Your task to perform on an android device: Check the news Image 0: 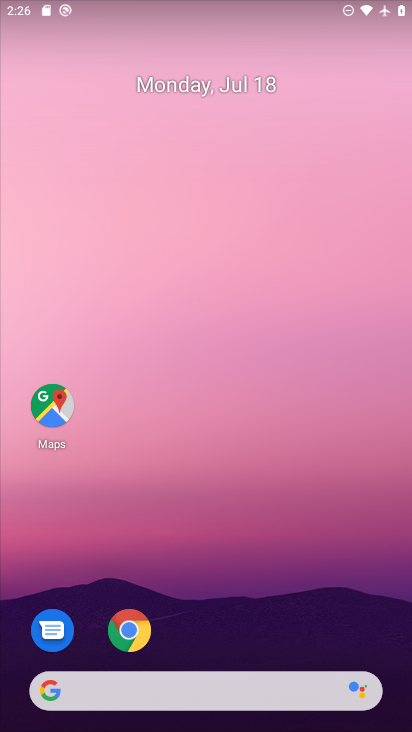
Step 0: click (50, 686)
Your task to perform on an android device: Check the news Image 1: 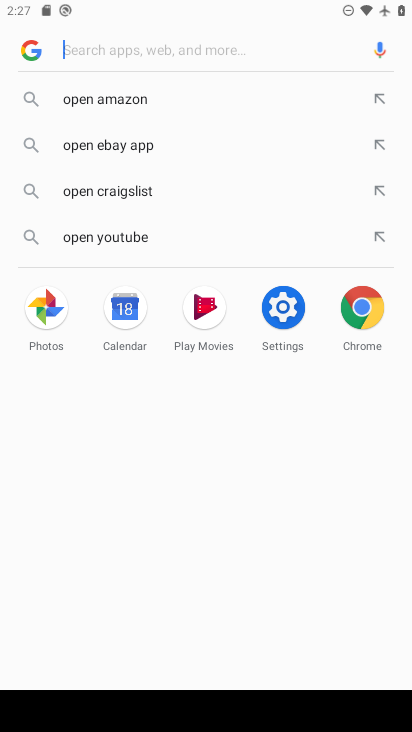
Step 1: type "news"
Your task to perform on an android device: Check the news Image 2: 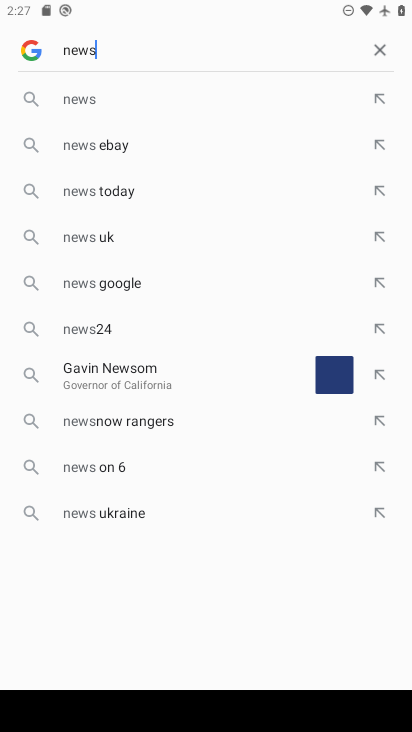
Step 2: press enter
Your task to perform on an android device: Check the news Image 3: 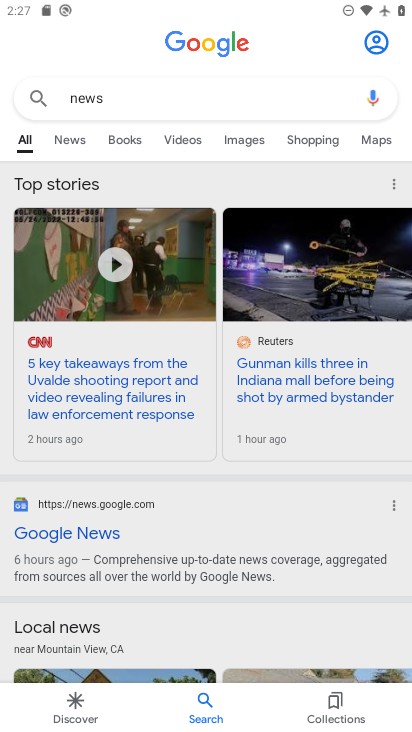
Step 3: task complete